Your task to perform on an android device: change the clock style Image 0: 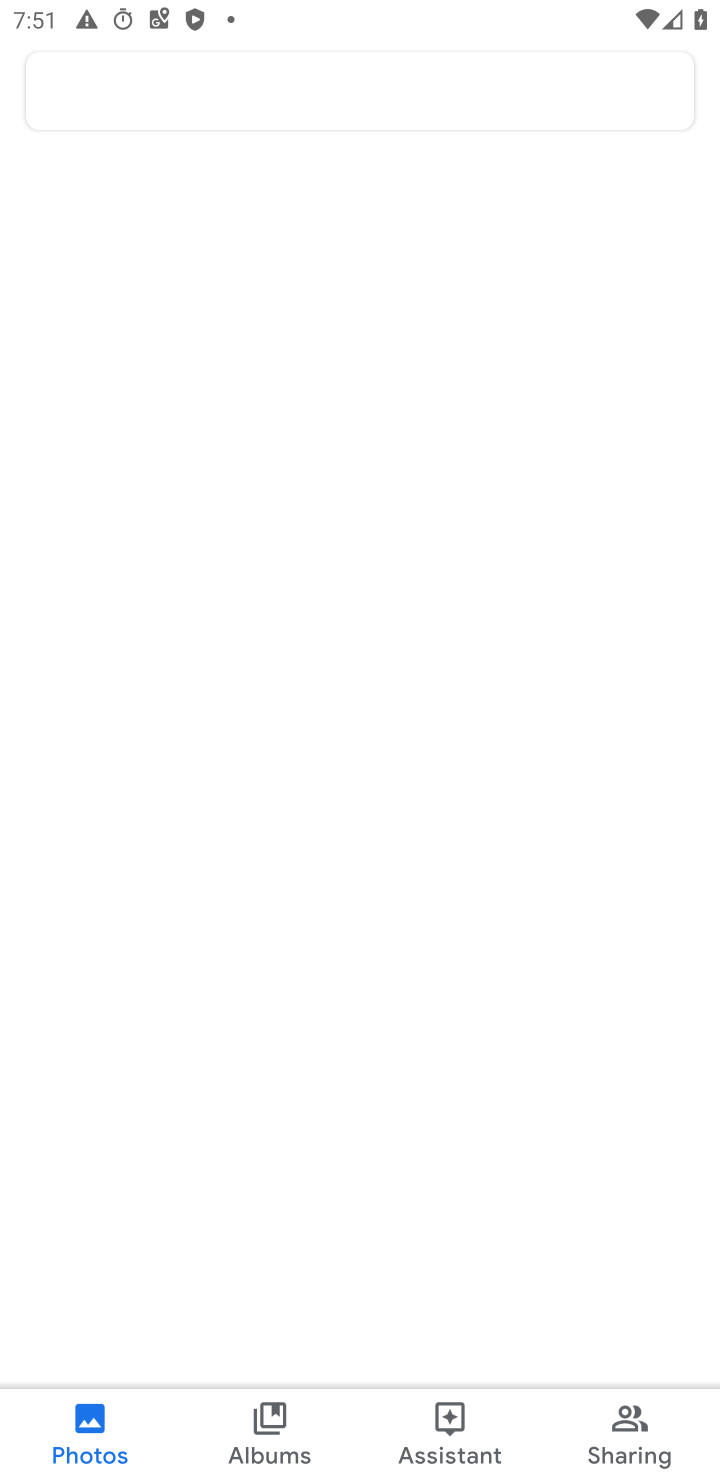
Step 0: press home button
Your task to perform on an android device: change the clock style Image 1: 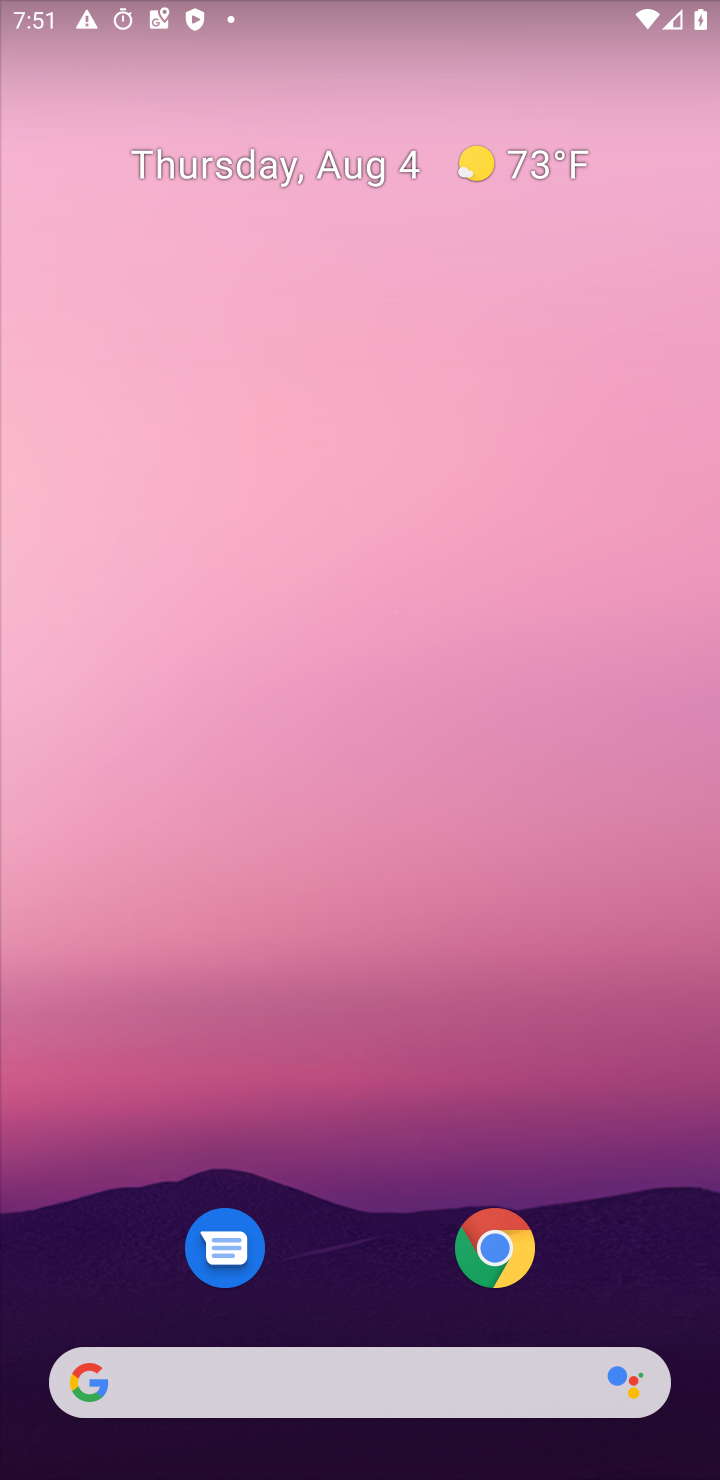
Step 1: drag from (254, 818) to (196, 654)
Your task to perform on an android device: change the clock style Image 2: 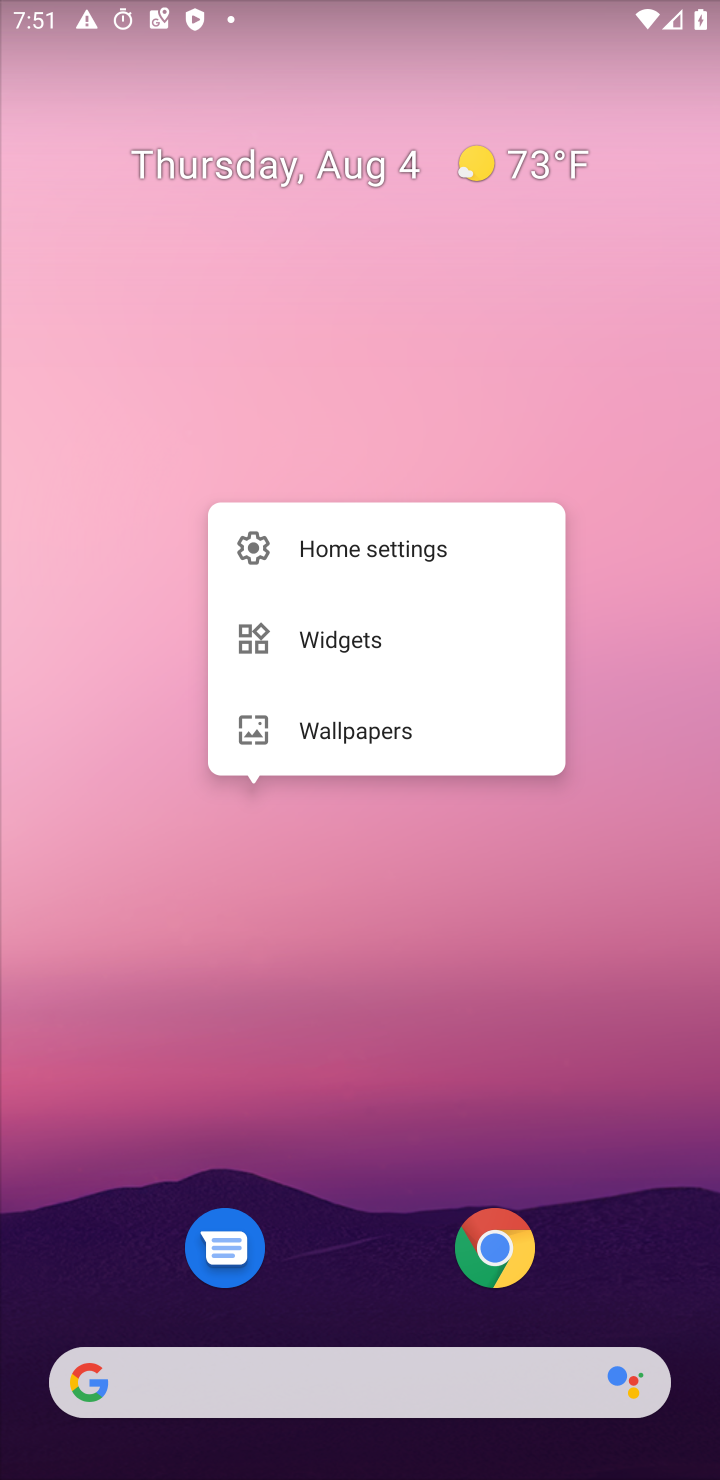
Step 2: click (359, 955)
Your task to perform on an android device: change the clock style Image 3: 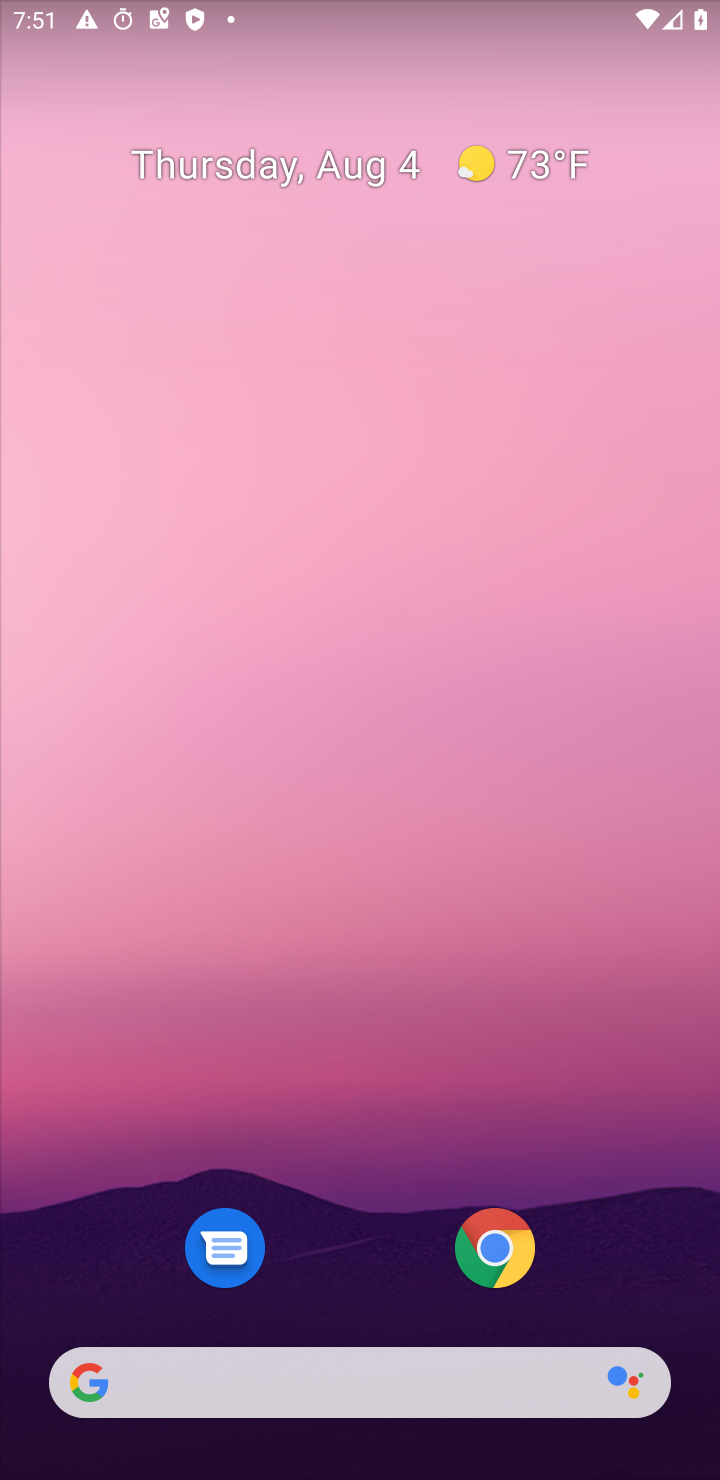
Step 3: drag from (330, 1438) to (107, 528)
Your task to perform on an android device: change the clock style Image 4: 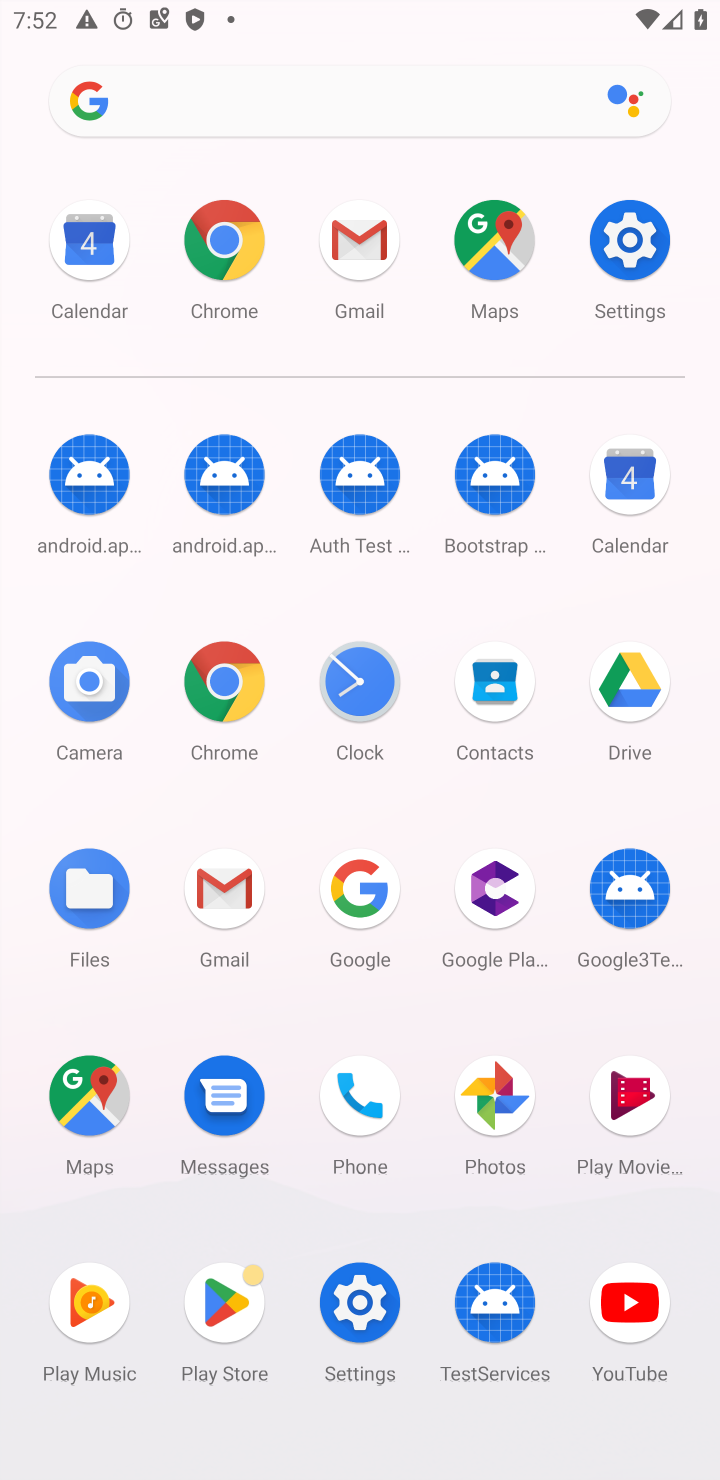
Step 4: click (331, 675)
Your task to perform on an android device: change the clock style Image 5: 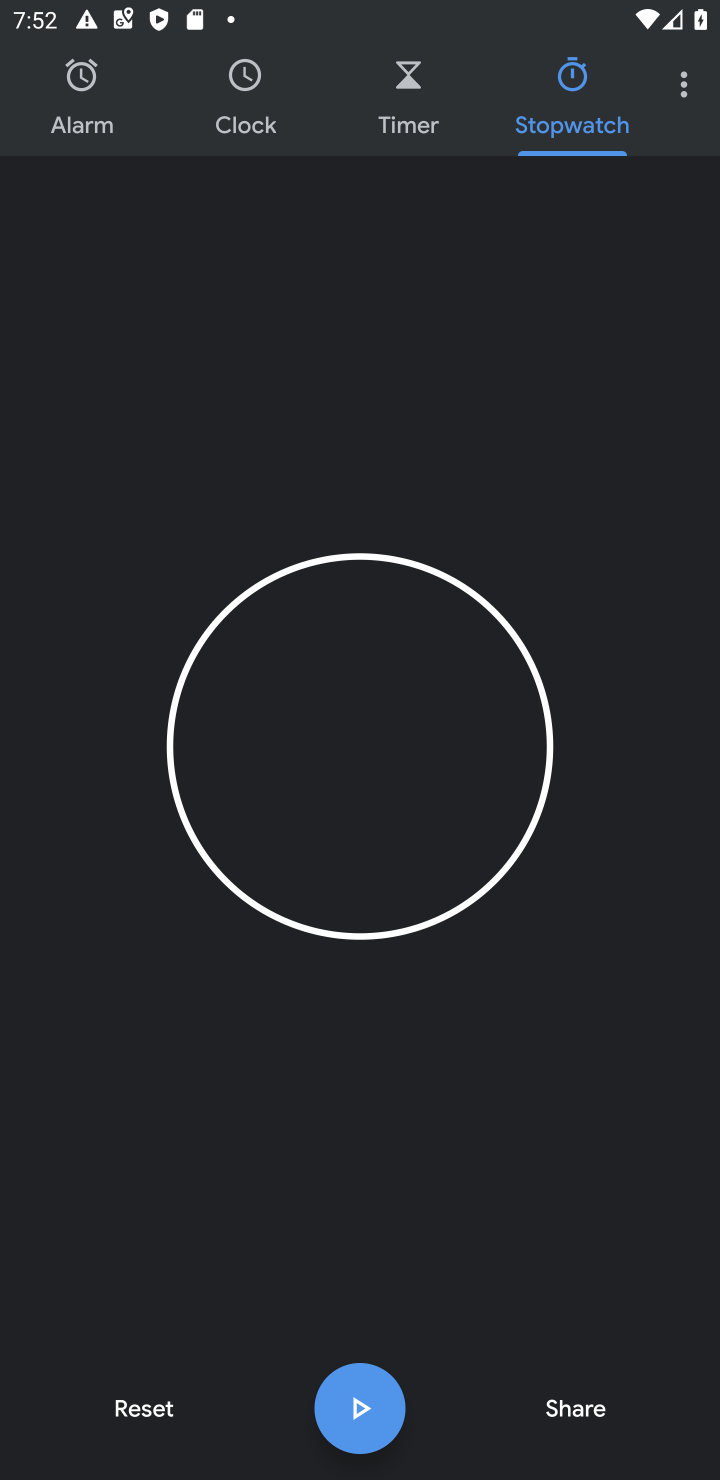
Step 5: click (690, 108)
Your task to perform on an android device: change the clock style Image 6: 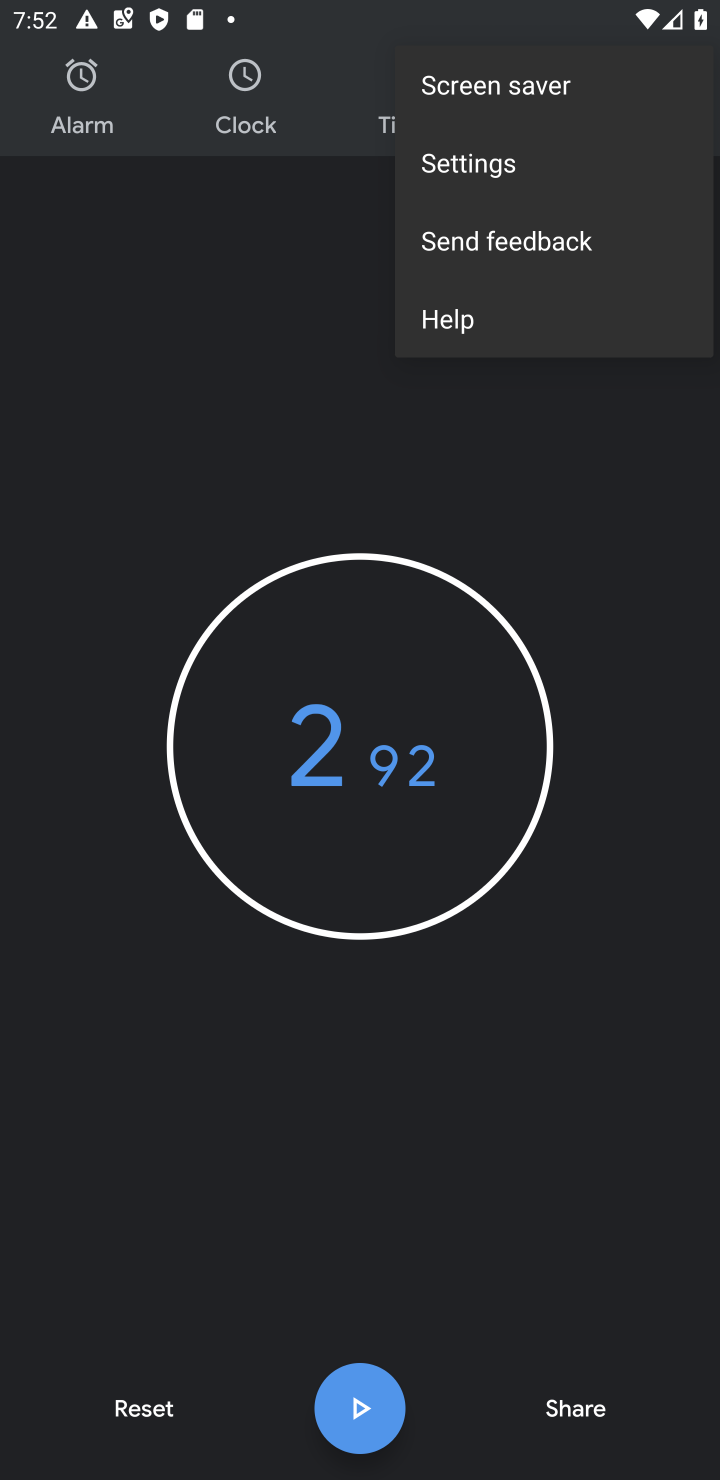
Step 6: click (534, 172)
Your task to perform on an android device: change the clock style Image 7: 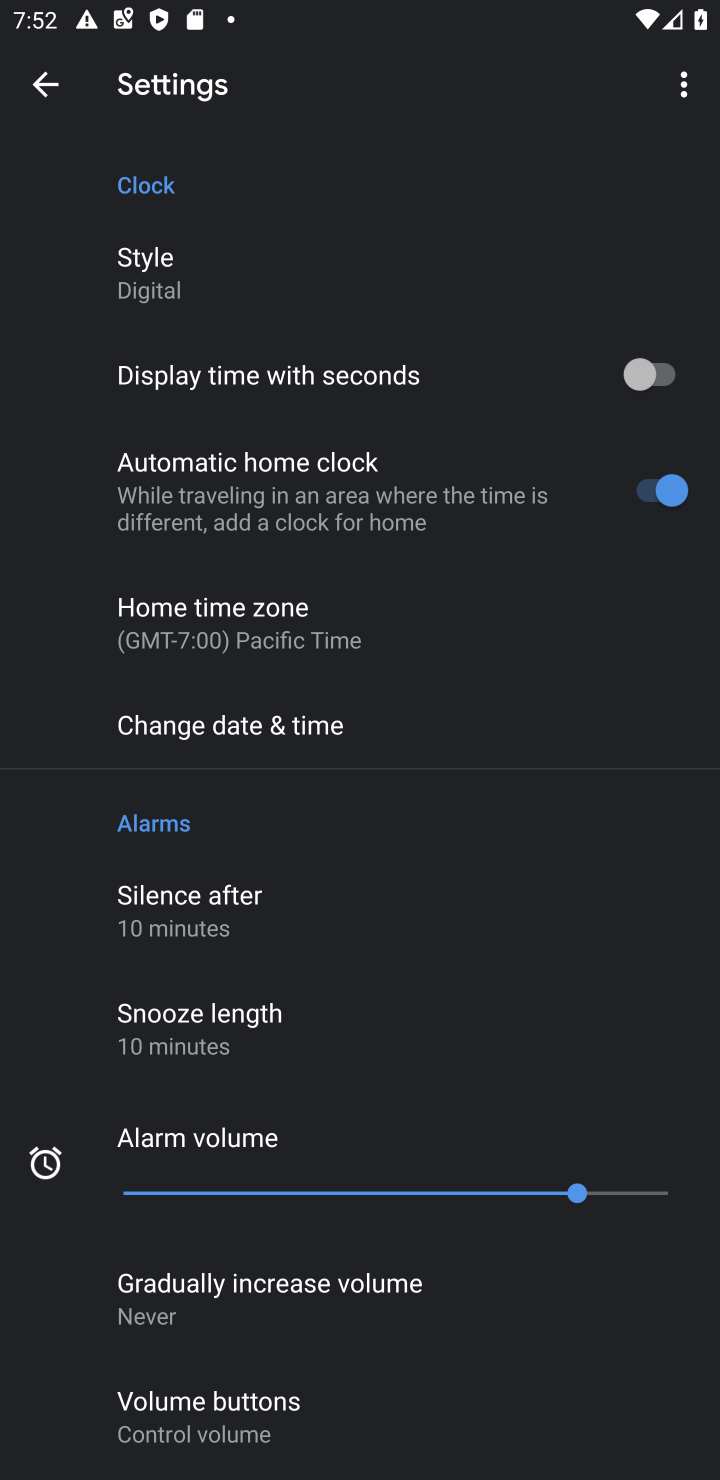
Step 7: click (223, 299)
Your task to perform on an android device: change the clock style Image 8: 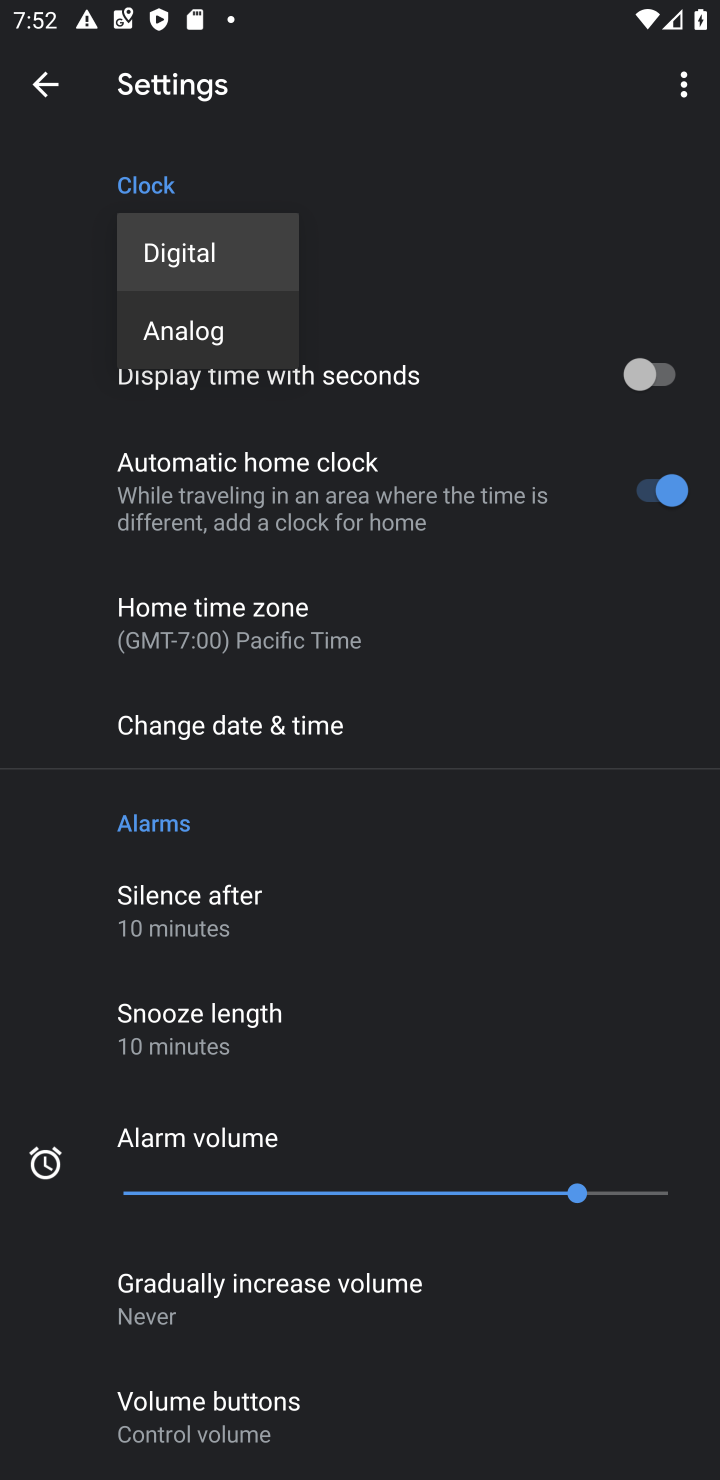
Step 8: click (188, 329)
Your task to perform on an android device: change the clock style Image 9: 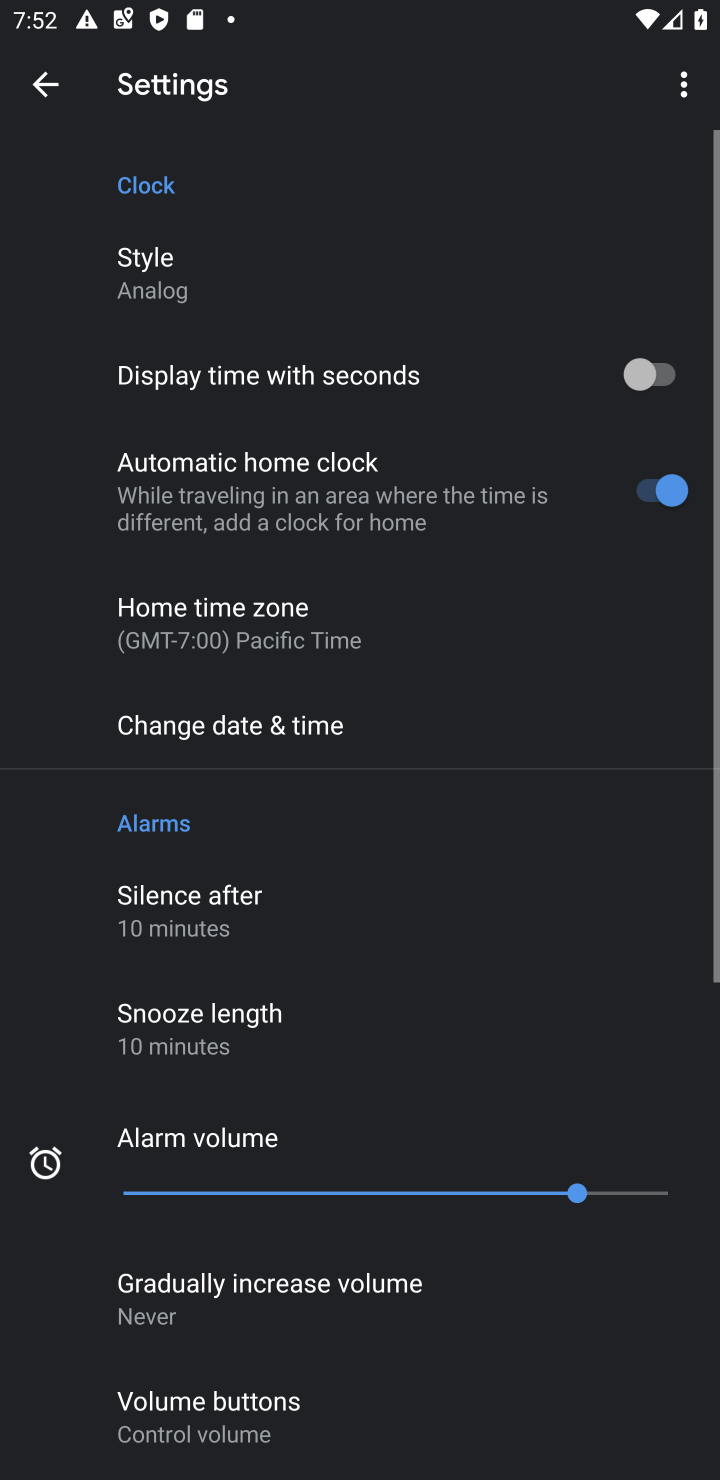
Step 9: task complete